Your task to perform on an android device: What's on my calendar tomorrow? Image 0: 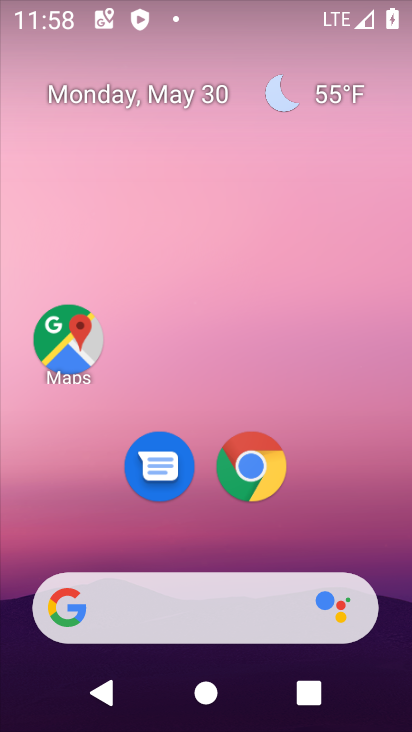
Step 0: drag from (346, 570) to (356, 4)
Your task to perform on an android device: What's on my calendar tomorrow? Image 1: 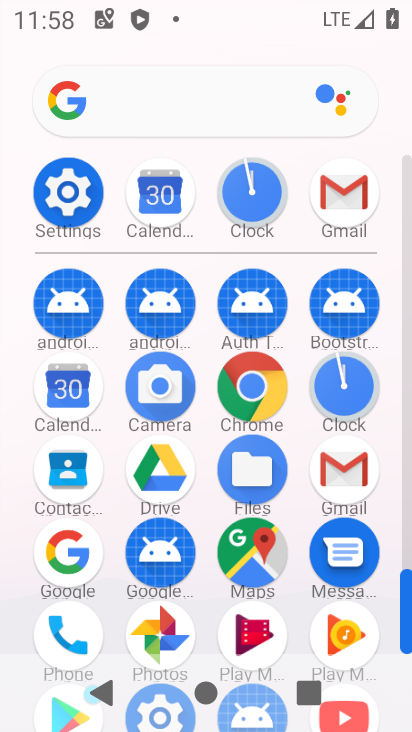
Step 1: click (173, 196)
Your task to perform on an android device: What's on my calendar tomorrow? Image 2: 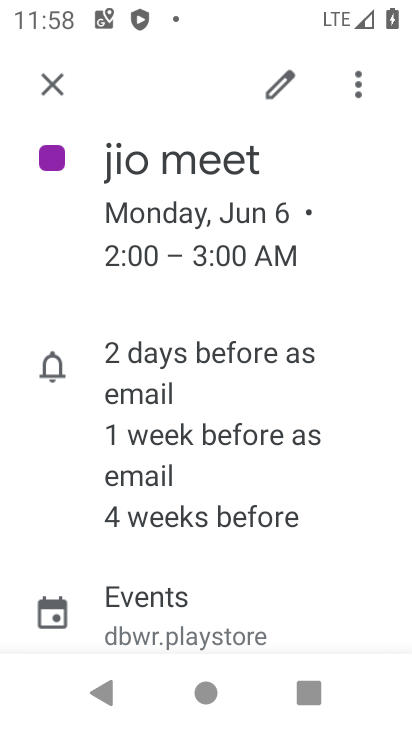
Step 2: click (57, 87)
Your task to perform on an android device: What's on my calendar tomorrow? Image 3: 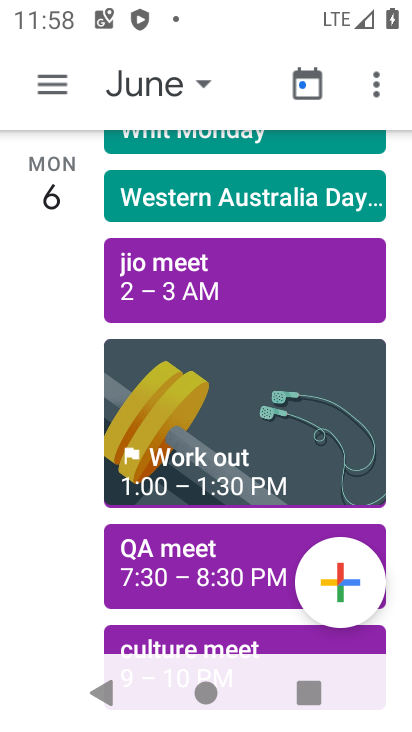
Step 3: click (174, 87)
Your task to perform on an android device: What's on my calendar tomorrow? Image 4: 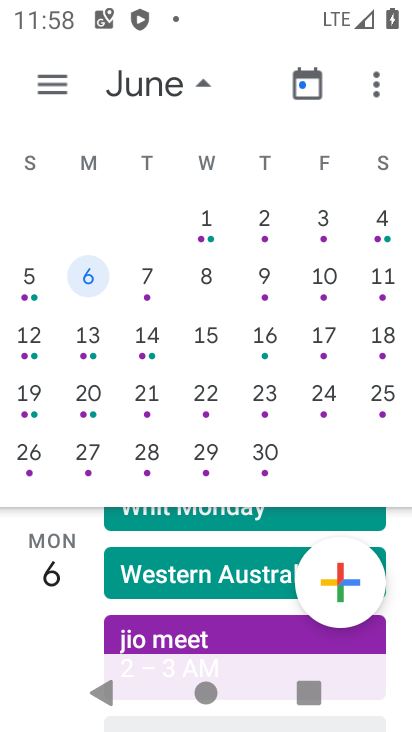
Step 4: drag from (110, 264) to (375, 281)
Your task to perform on an android device: What's on my calendar tomorrow? Image 5: 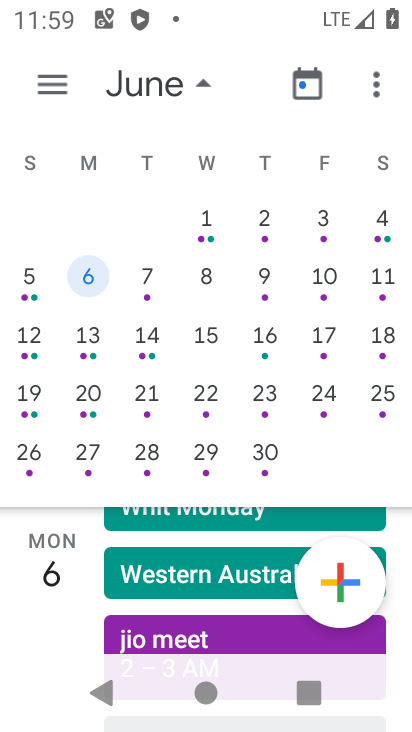
Step 5: click (4, 288)
Your task to perform on an android device: What's on my calendar tomorrow? Image 6: 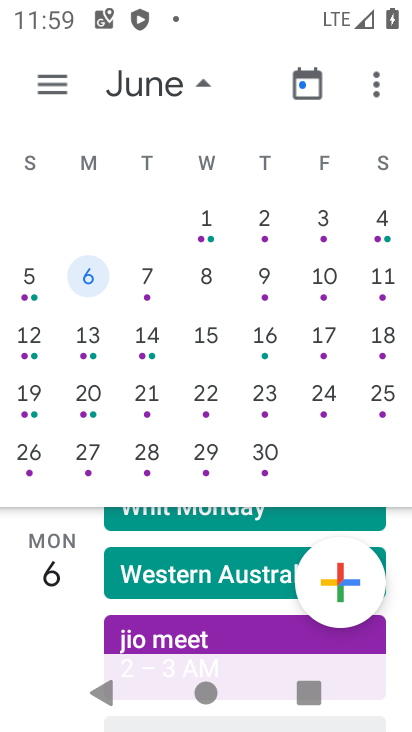
Step 6: drag from (43, 295) to (411, 316)
Your task to perform on an android device: What's on my calendar tomorrow? Image 7: 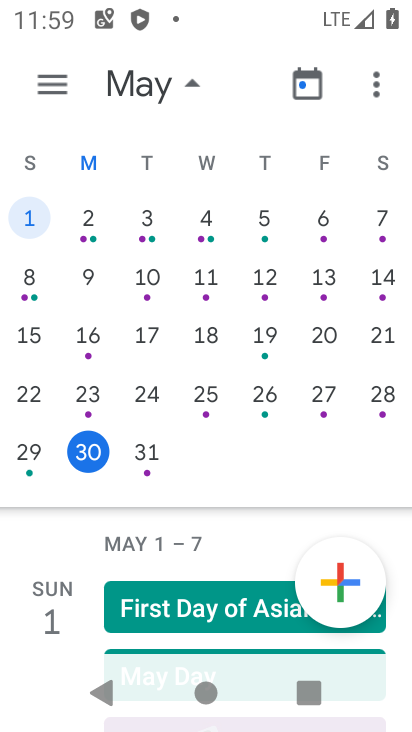
Step 7: click (138, 449)
Your task to perform on an android device: What's on my calendar tomorrow? Image 8: 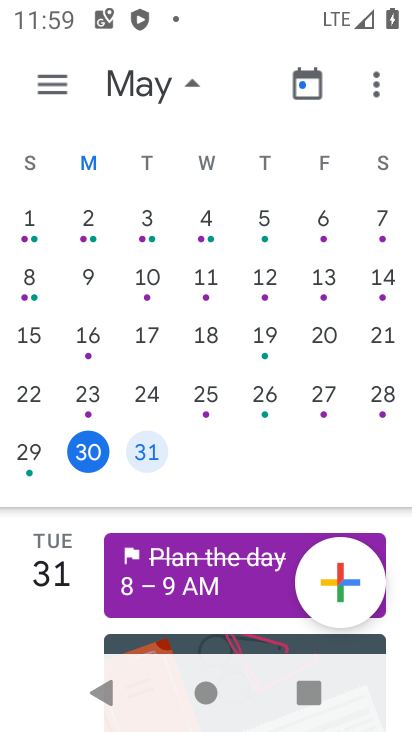
Step 8: click (141, 458)
Your task to perform on an android device: What's on my calendar tomorrow? Image 9: 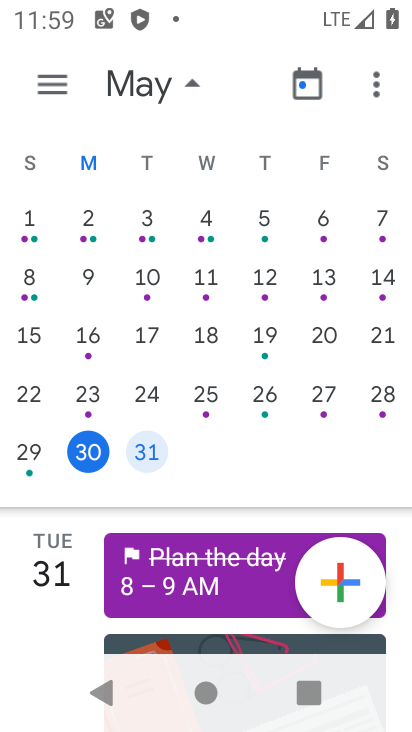
Step 9: click (60, 95)
Your task to perform on an android device: What's on my calendar tomorrow? Image 10: 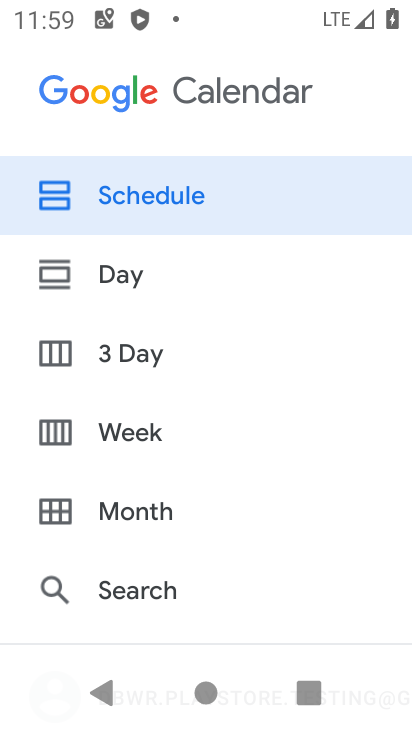
Step 10: click (123, 282)
Your task to perform on an android device: What's on my calendar tomorrow? Image 11: 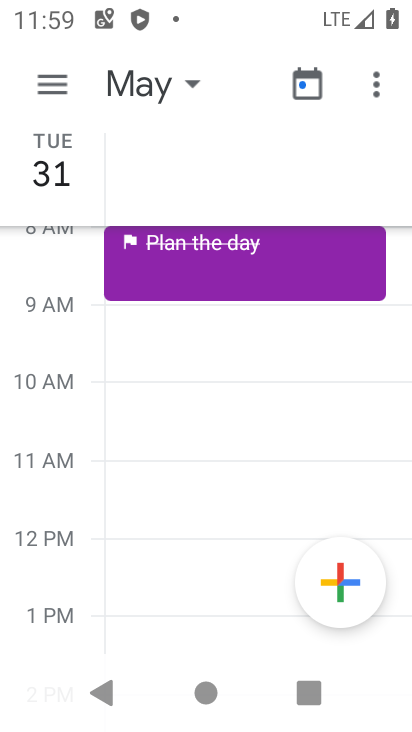
Step 11: task complete